Your task to perform on an android device: Go to eBay Image 0: 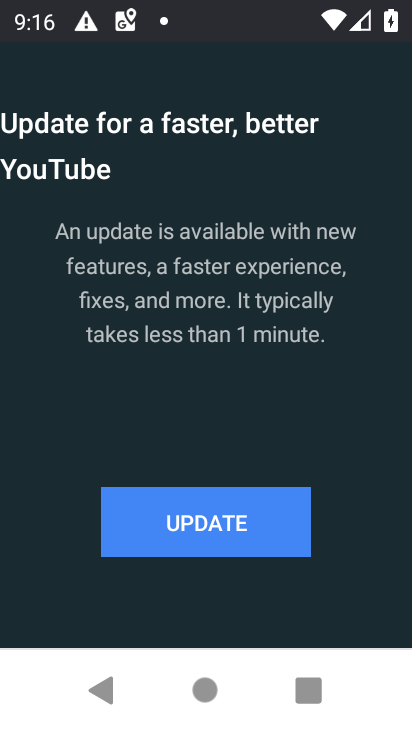
Step 0: press home button
Your task to perform on an android device: Go to eBay Image 1: 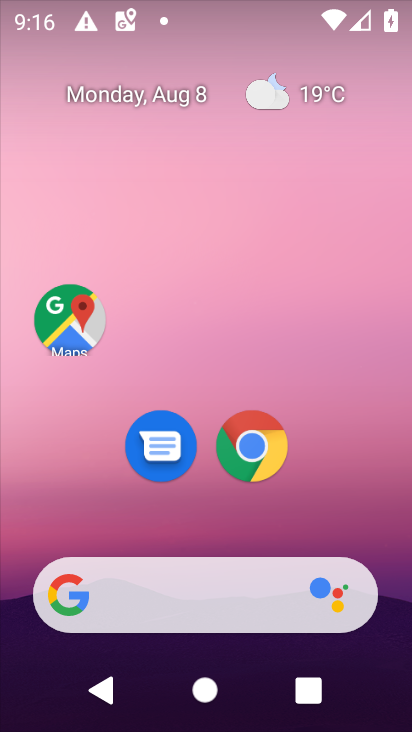
Step 1: click (260, 447)
Your task to perform on an android device: Go to eBay Image 2: 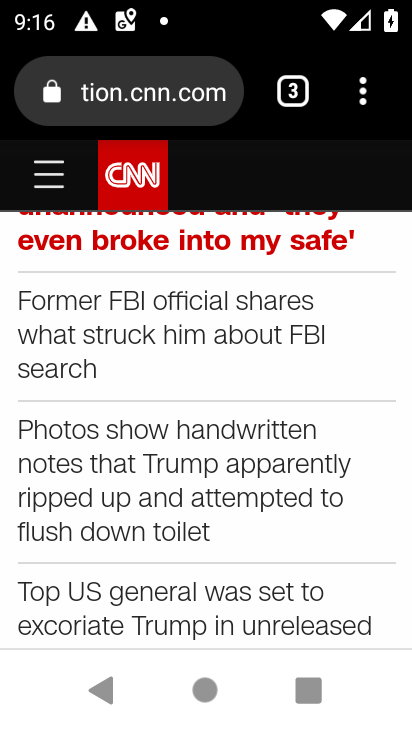
Step 2: click (219, 72)
Your task to perform on an android device: Go to eBay Image 3: 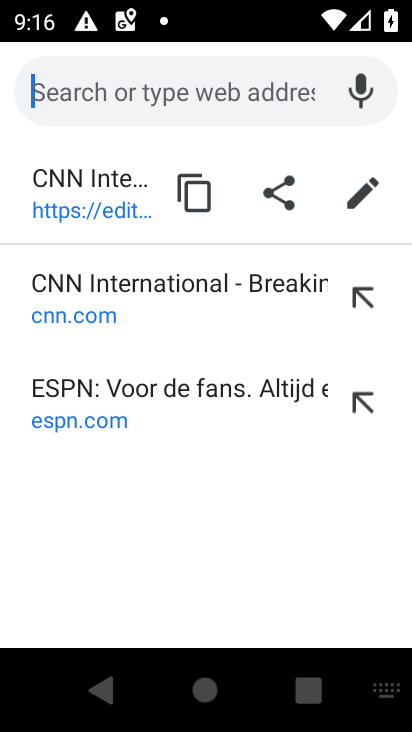
Step 3: type "ebay"
Your task to perform on an android device: Go to eBay Image 4: 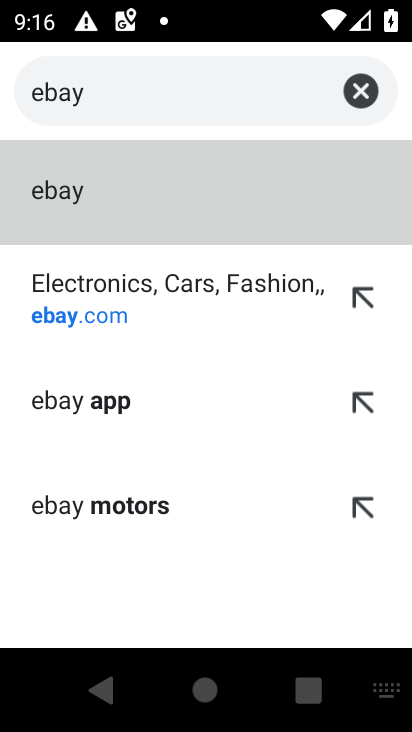
Step 4: click (48, 190)
Your task to perform on an android device: Go to eBay Image 5: 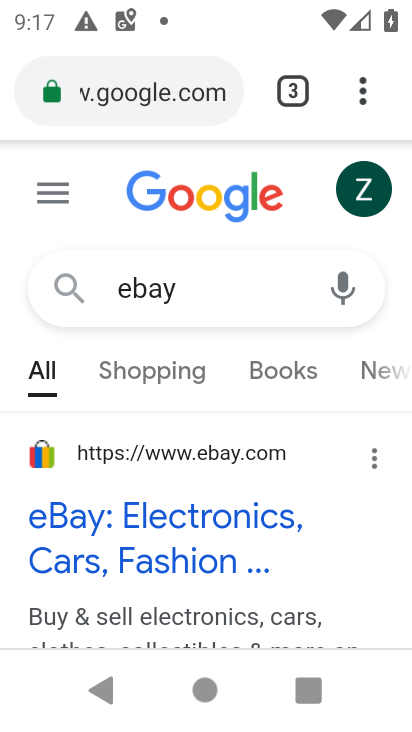
Step 5: click (125, 529)
Your task to perform on an android device: Go to eBay Image 6: 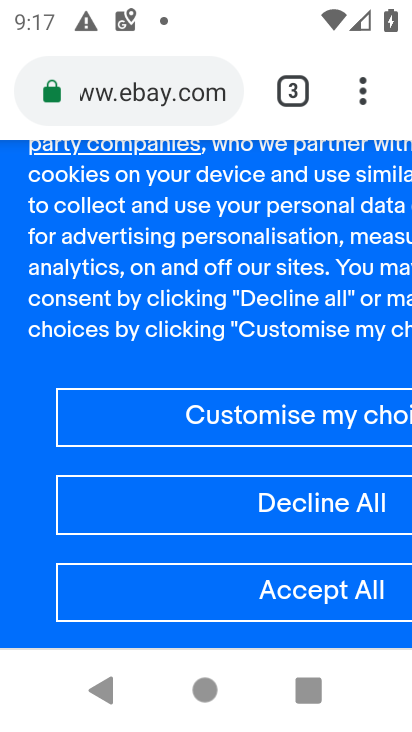
Step 6: click (306, 579)
Your task to perform on an android device: Go to eBay Image 7: 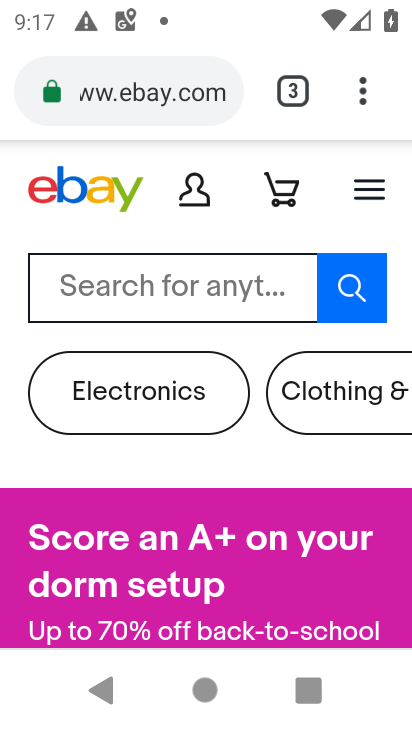
Step 7: task complete